Your task to perform on an android device: Go to location settings Image 0: 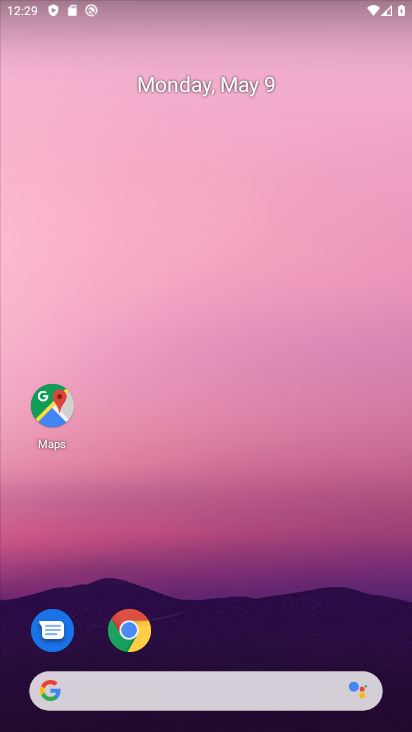
Step 0: drag from (228, 613) to (339, 79)
Your task to perform on an android device: Go to location settings Image 1: 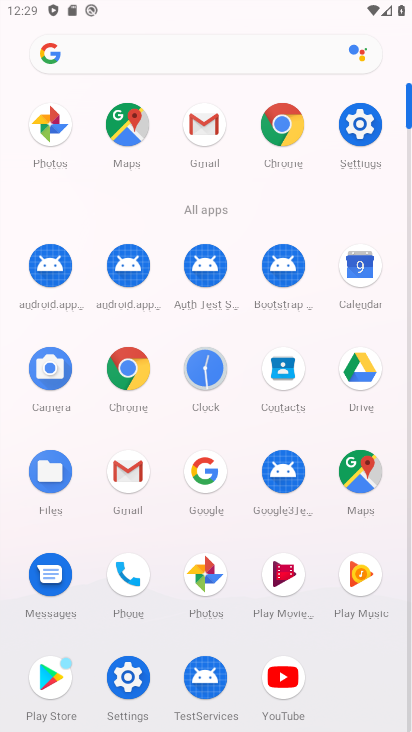
Step 1: click (126, 693)
Your task to perform on an android device: Go to location settings Image 2: 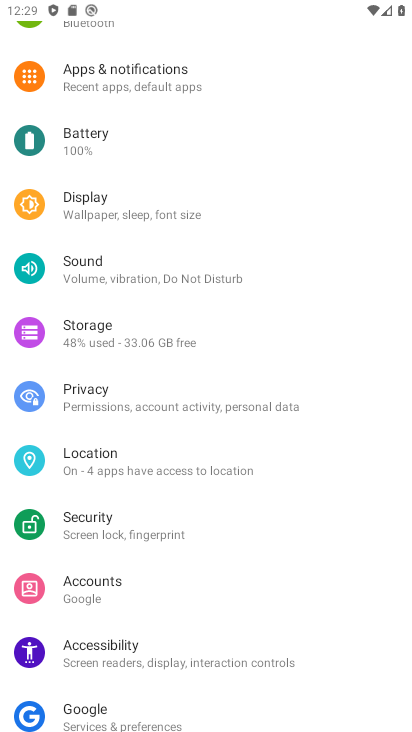
Step 2: click (255, 449)
Your task to perform on an android device: Go to location settings Image 3: 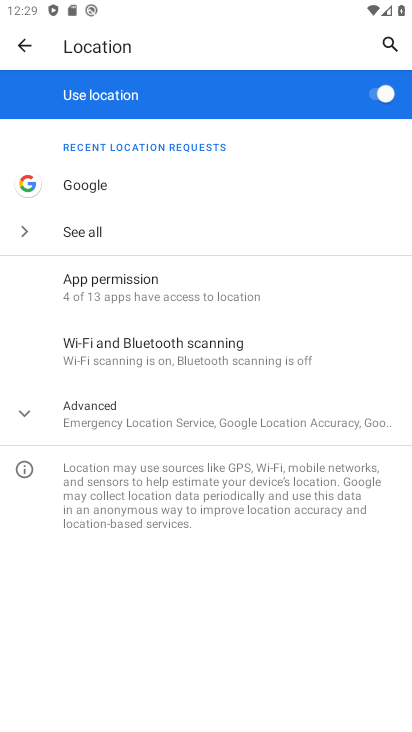
Step 3: click (286, 425)
Your task to perform on an android device: Go to location settings Image 4: 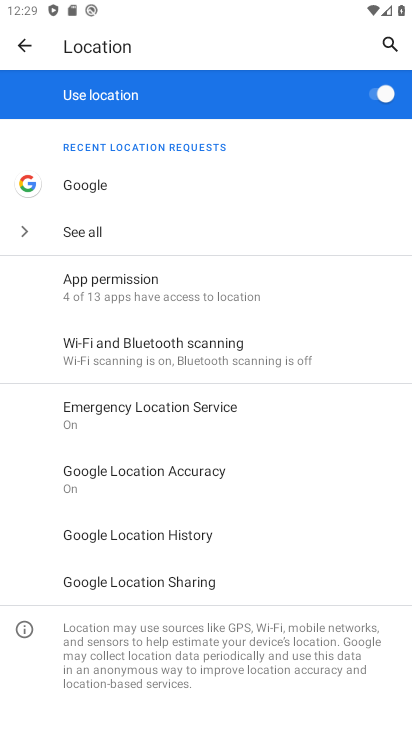
Step 4: task complete